Your task to perform on an android device: open the mobile data screen to see how much data has been used Image 0: 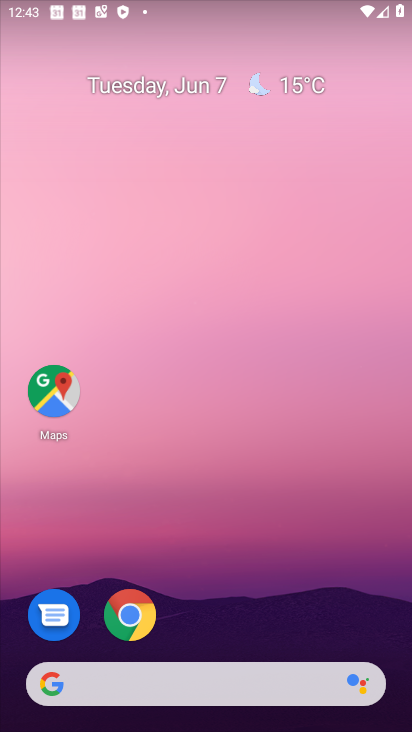
Step 0: drag from (208, 634) to (208, 131)
Your task to perform on an android device: open the mobile data screen to see how much data has been used Image 1: 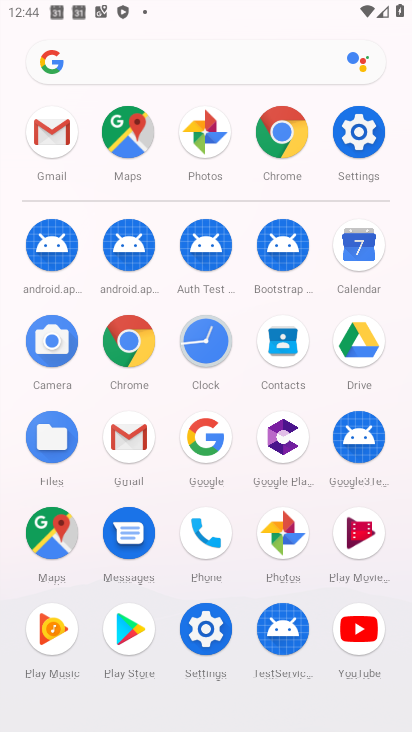
Step 1: drag from (251, 621) to (282, 259)
Your task to perform on an android device: open the mobile data screen to see how much data has been used Image 2: 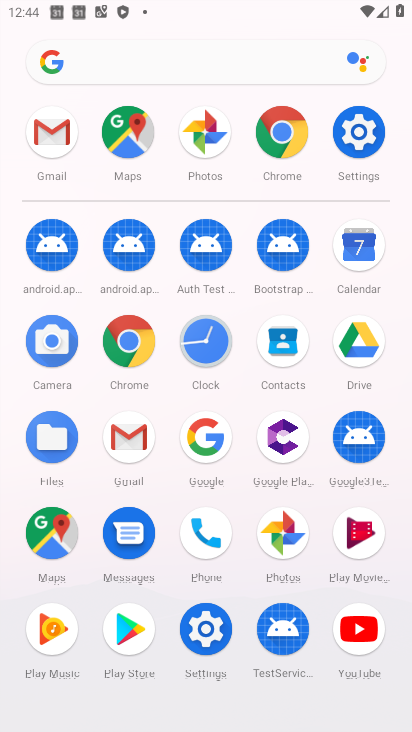
Step 2: click (365, 140)
Your task to perform on an android device: open the mobile data screen to see how much data has been used Image 3: 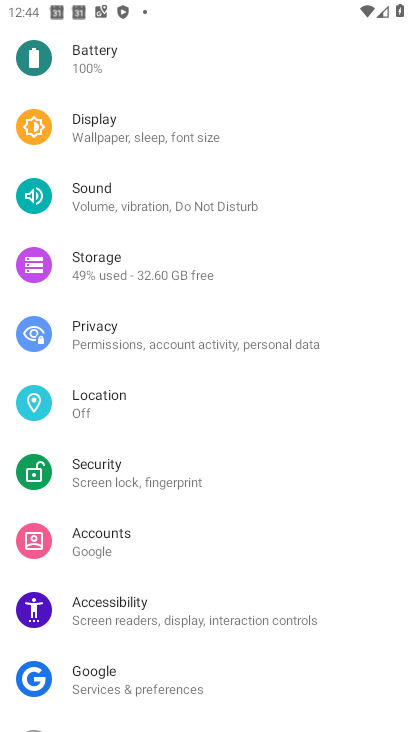
Step 3: drag from (105, 116) to (146, 555)
Your task to perform on an android device: open the mobile data screen to see how much data has been used Image 4: 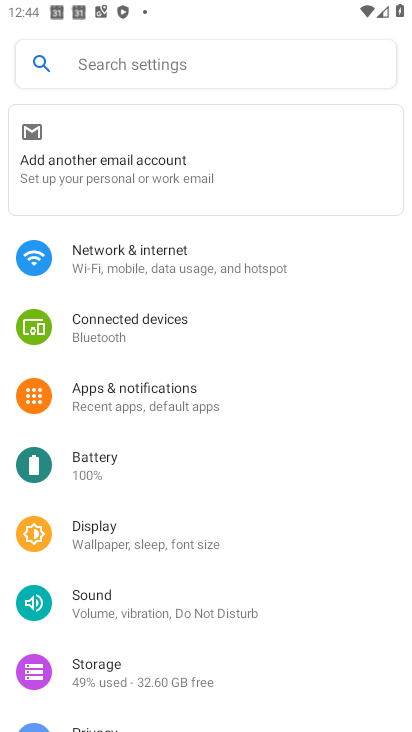
Step 4: click (106, 274)
Your task to perform on an android device: open the mobile data screen to see how much data has been used Image 5: 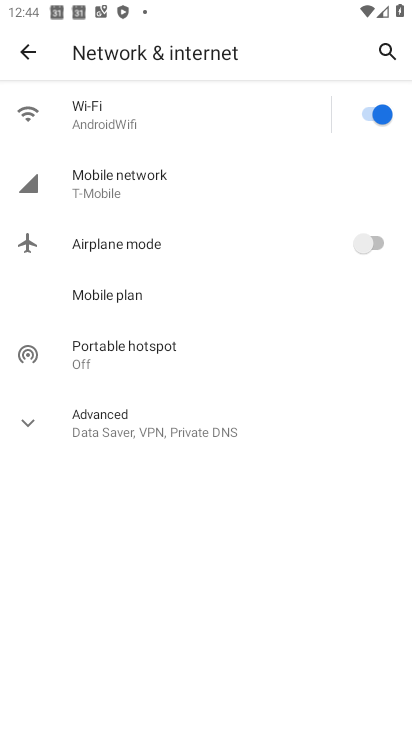
Step 5: click (115, 191)
Your task to perform on an android device: open the mobile data screen to see how much data has been used Image 6: 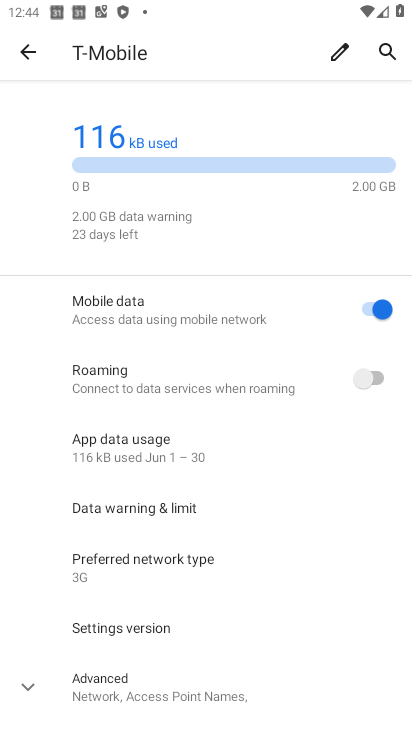
Step 6: task complete